Your task to perform on an android device: Open notification settings Image 0: 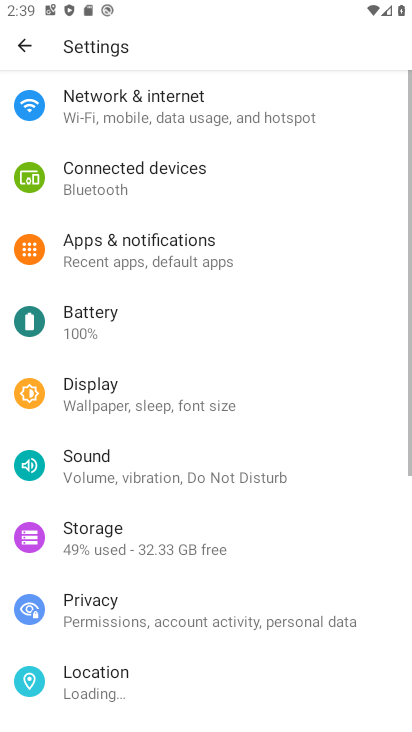
Step 0: press home button
Your task to perform on an android device: Open notification settings Image 1: 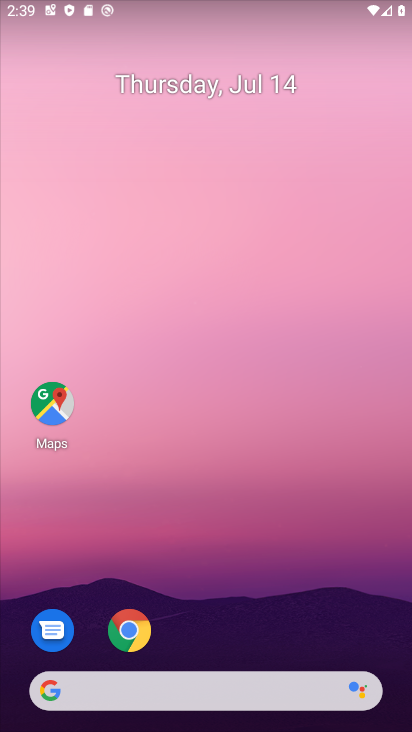
Step 1: drag from (216, 651) to (249, 130)
Your task to perform on an android device: Open notification settings Image 2: 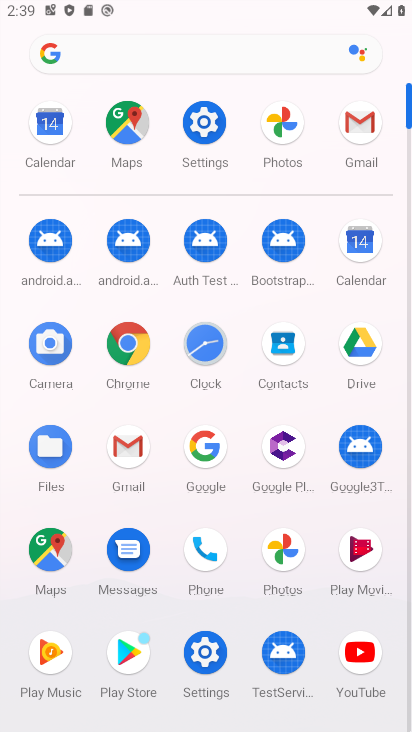
Step 2: click (205, 122)
Your task to perform on an android device: Open notification settings Image 3: 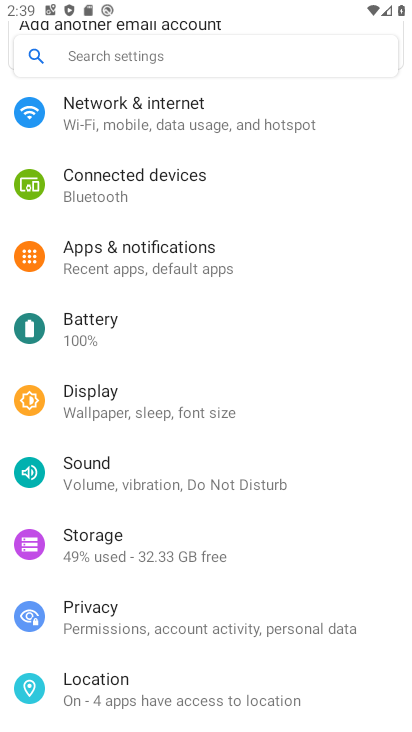
Step 3: click (171, 252)
Your task to perform on an android device: Open notification settings Image 4: 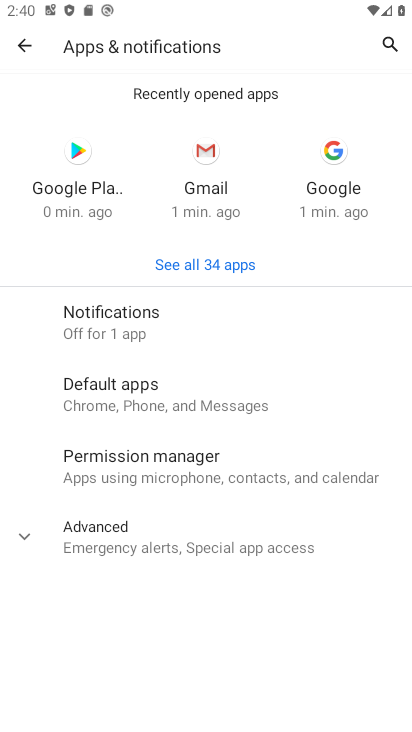
Step 4: click (139, 323)
Your task to perform on an android device: Open notification settings Image 5: 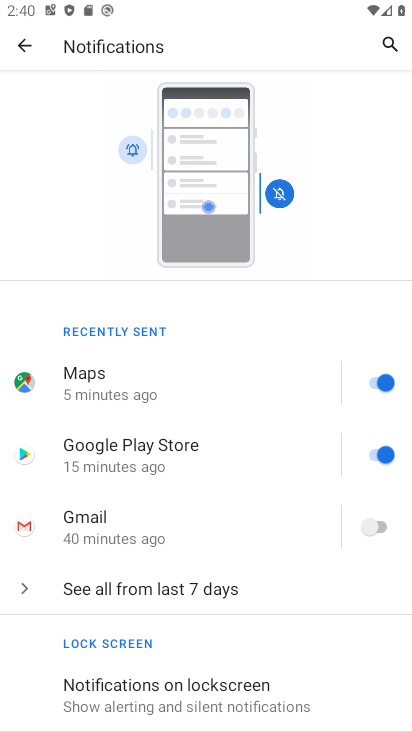
Step 5: drag from (210, 406) to (216, 100)
Your task to perform on an android device: Open notification settings Image 6: 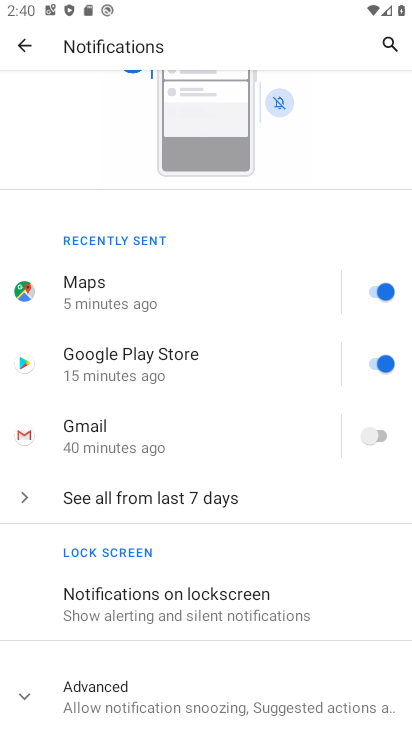
Step 6: click (21, 686)
Your task to perform on an android device: Open notification settings Image 7: 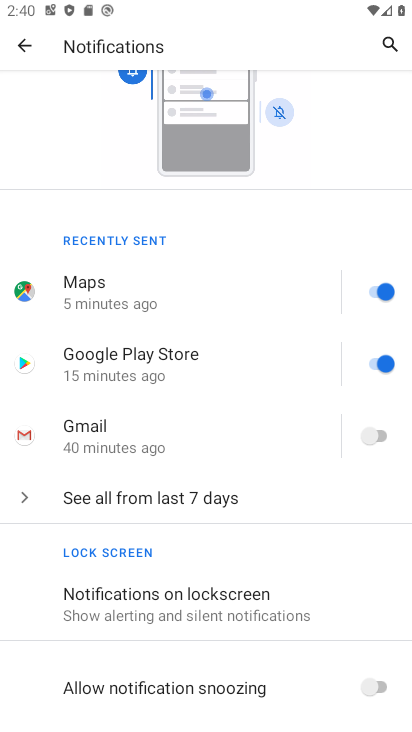
Step 7: task complete